Your task to perform on an android device: Search for "panasonic triple a" on newegg.com, select the first entry, add it to the cart, then select checkout. Image 0: 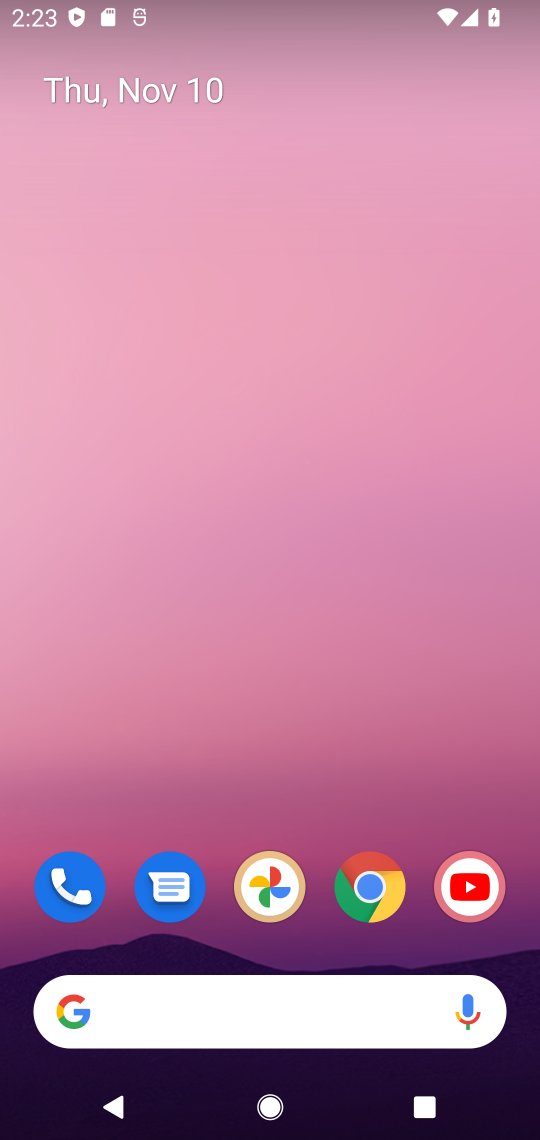
Step 0: drag from (313, 958) to (456, 163)
Your task to perform on an android device: Search for "panasonic triple a" on newegg.com, select the first entry, add it to the cart, then select checkout. Image 1: 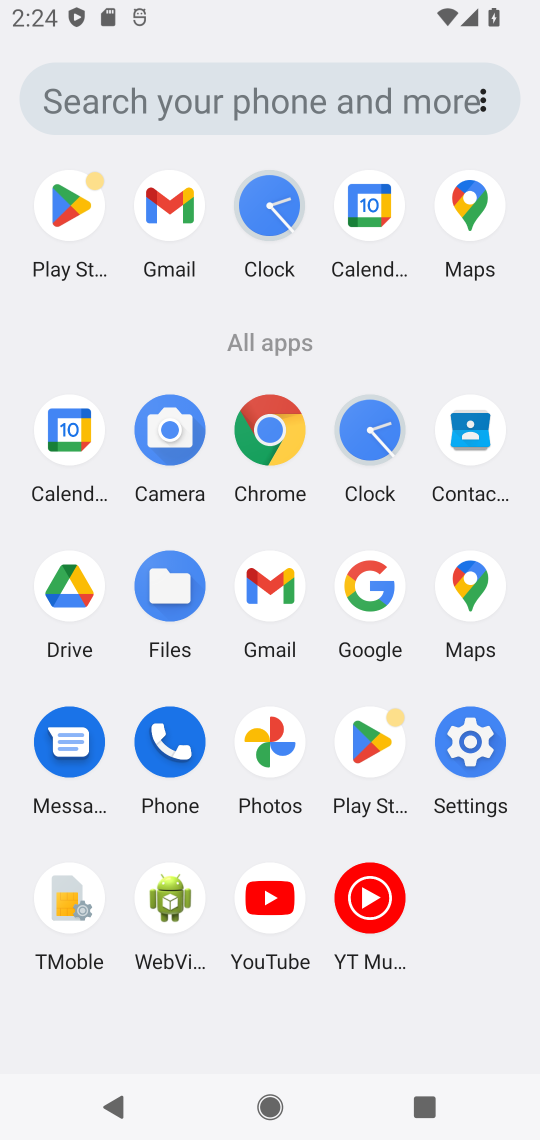
Step 1: click (273, 437)
Your task to perform on an android device: Search for "panasonic triple a" on newegg.com, select the first entry, add it to the cart, then select checkout. Image 2: 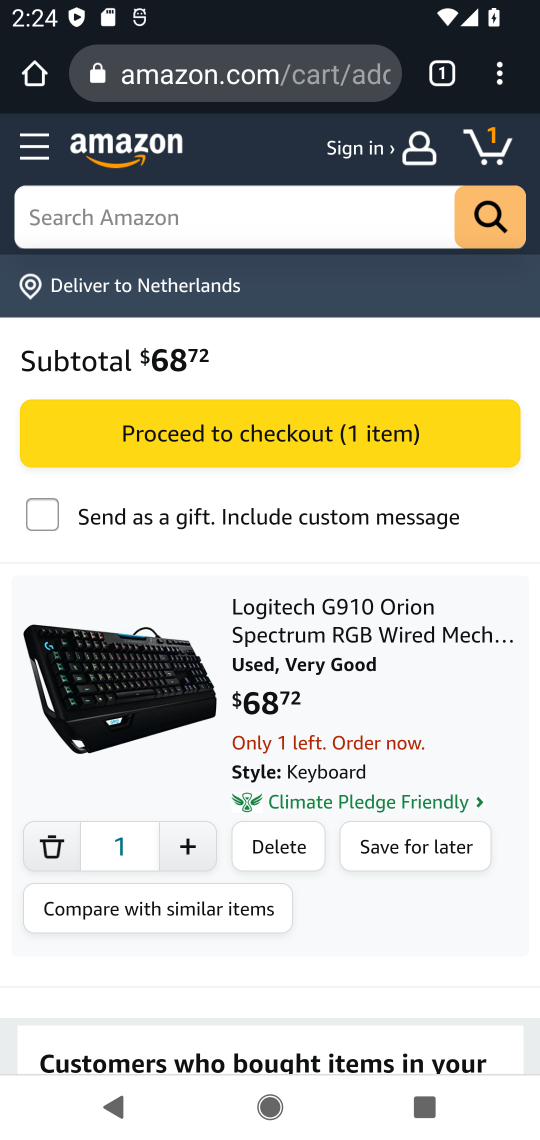
Step 2: click (248, 91)
Your task to perform on an android device: Search for "panasonic triple a" on newegg.com, select the first entry, add it to the cart, then select checkout. Image 3: 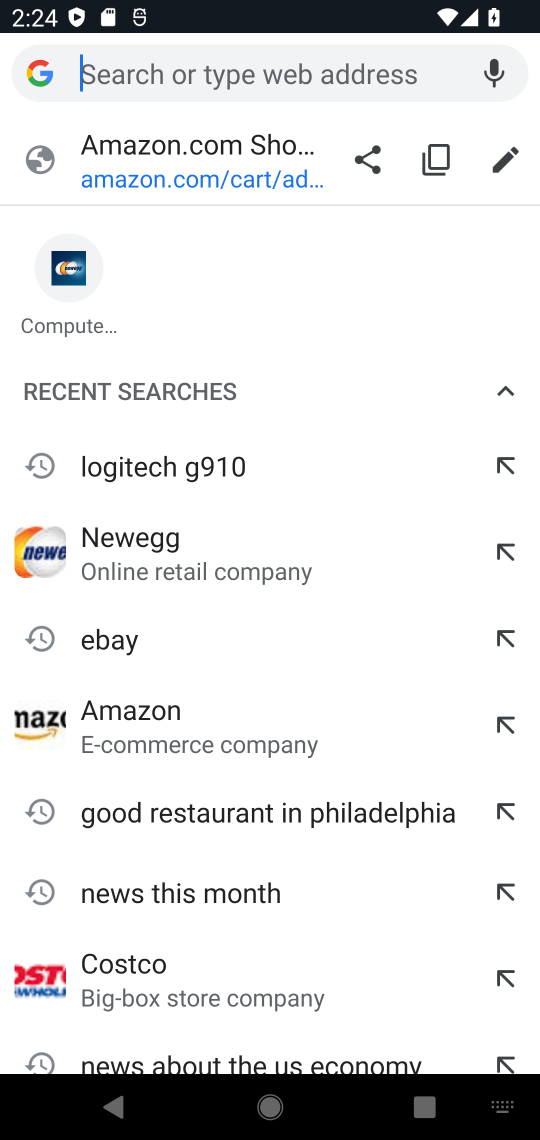
Step 3: type "newegg.com"
Your task to perform on an android device: Search for "panasonic triple a" on newegg.com, select the first entry, add it to the cart, then select checkout. Image 4: 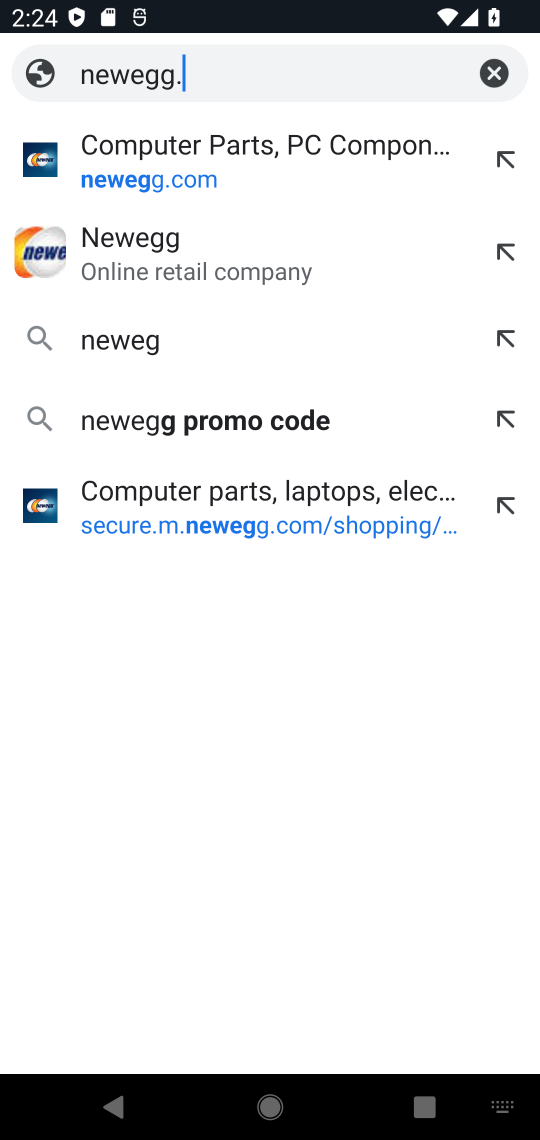
Step 4: press enter
Your task to perform on an android device: Search for "panasonic triple a" on newegg.com, select the first entry, add it to the cart, then select checkout. Image 5: 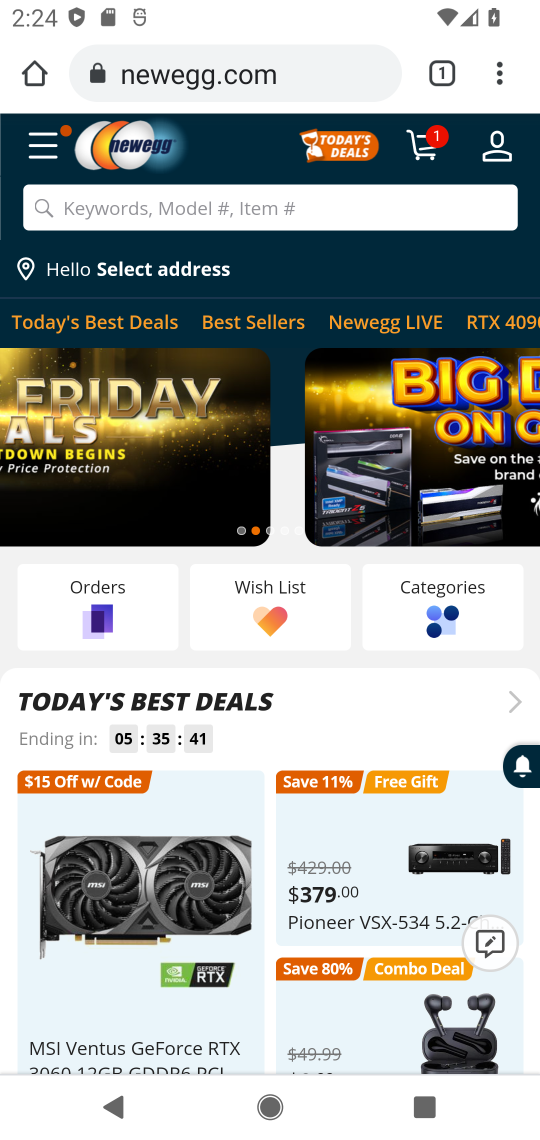
Step 5: click (403, 203)
Your task to perform on an android device: Search for "panasonic triple a" on newegg.com, select the first entry, add it to the cart, then select checkout. Image 6: 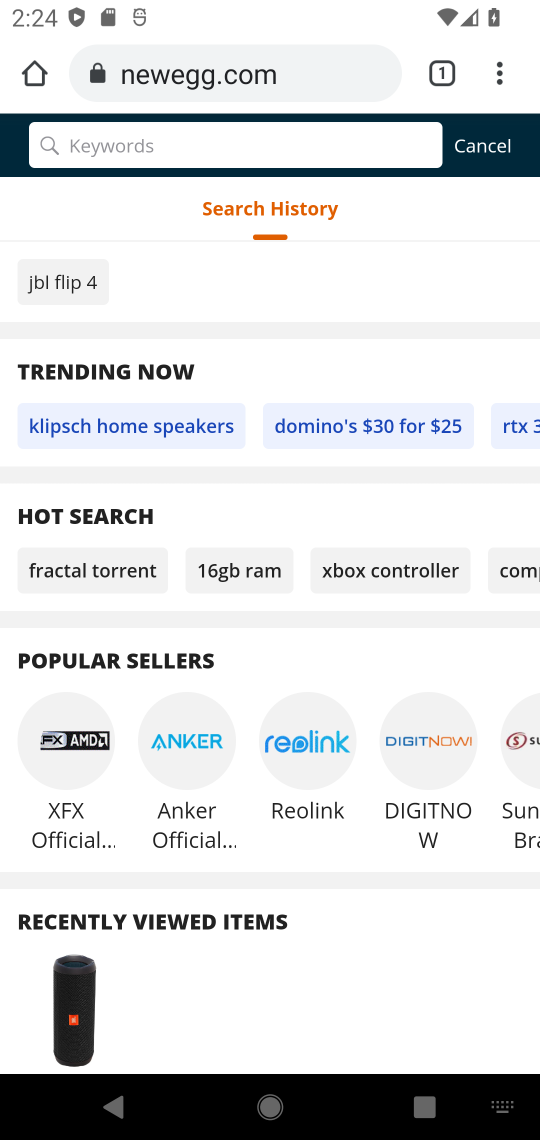
Step 6: type "panasonic triple a"
Your task to perform on an android device: Search for "panasonic triple a" on newegg.com, select the first entry, add it to the cart, then select checkout. Image 7: 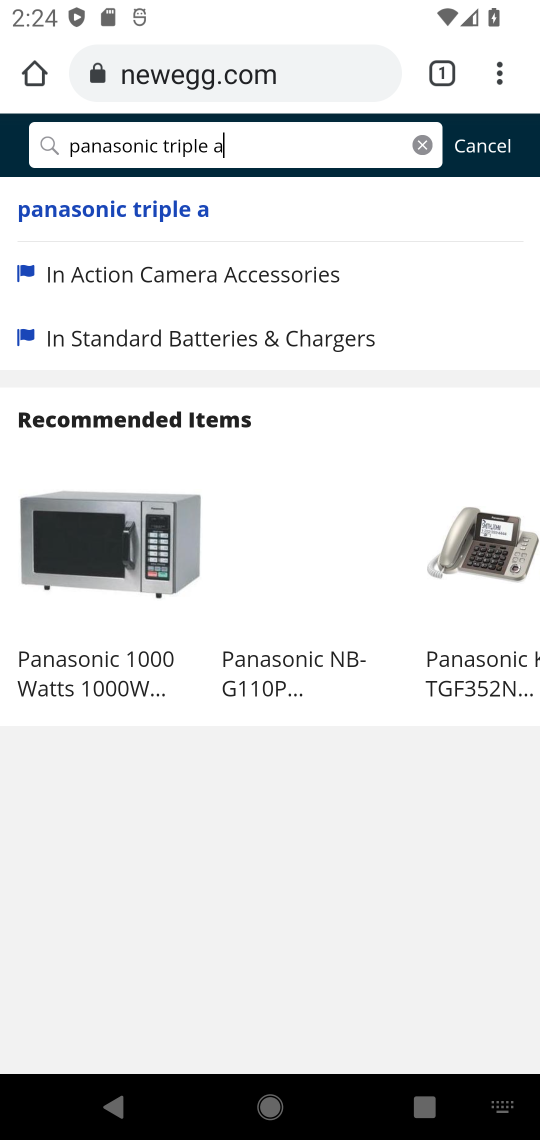
Step 7: press enter
Your task to perform on an android device: Search for "panasonic triple a" on newegg.com, select the first entry, add it to the cart, then select checkout. Image 8: 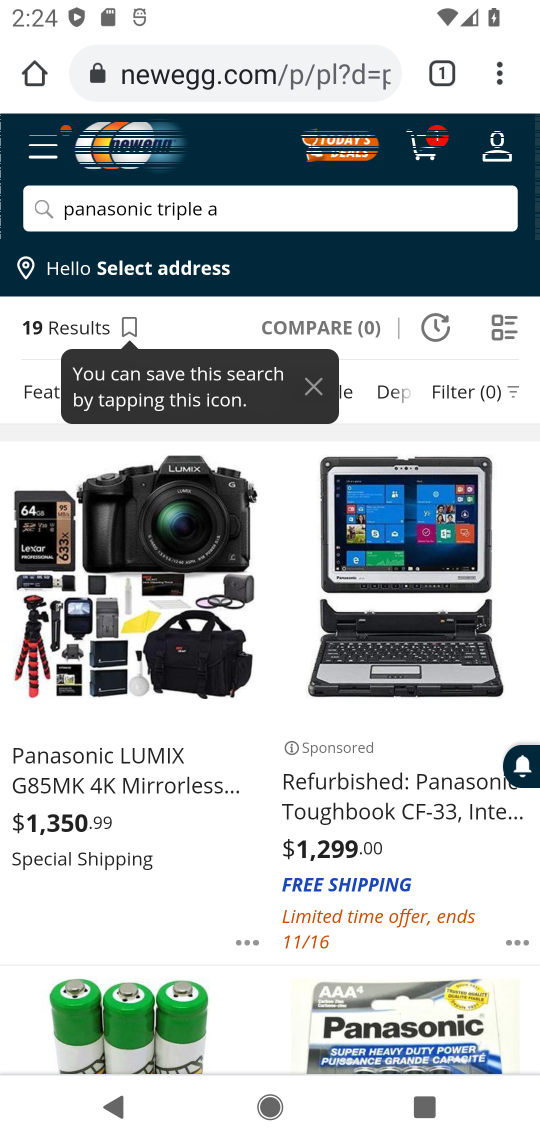
Step 8: drag from (253, 888) to (274, 219)
Your task to perform on an android device: Search for "panasonic triple a" on newegg.com, select the first entry, add it to the cart, then select checkout. Image 9: 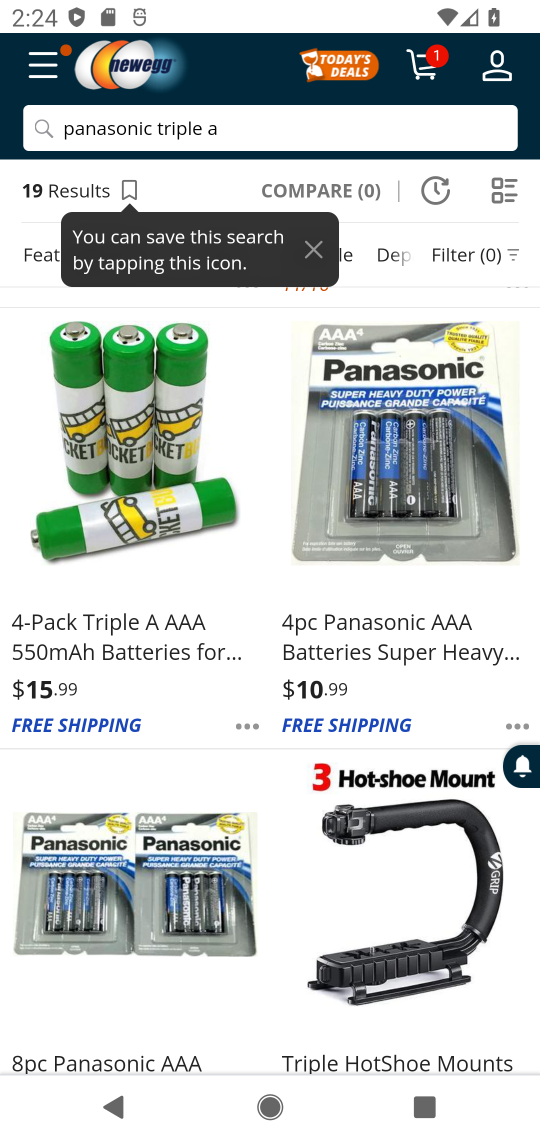
Step 9: click (374, 522)
Your task to perform on an android device: Search for "panasonic triple a" on newegg.com, select the first entry, add it to the cart, then select checkout. Image 10: 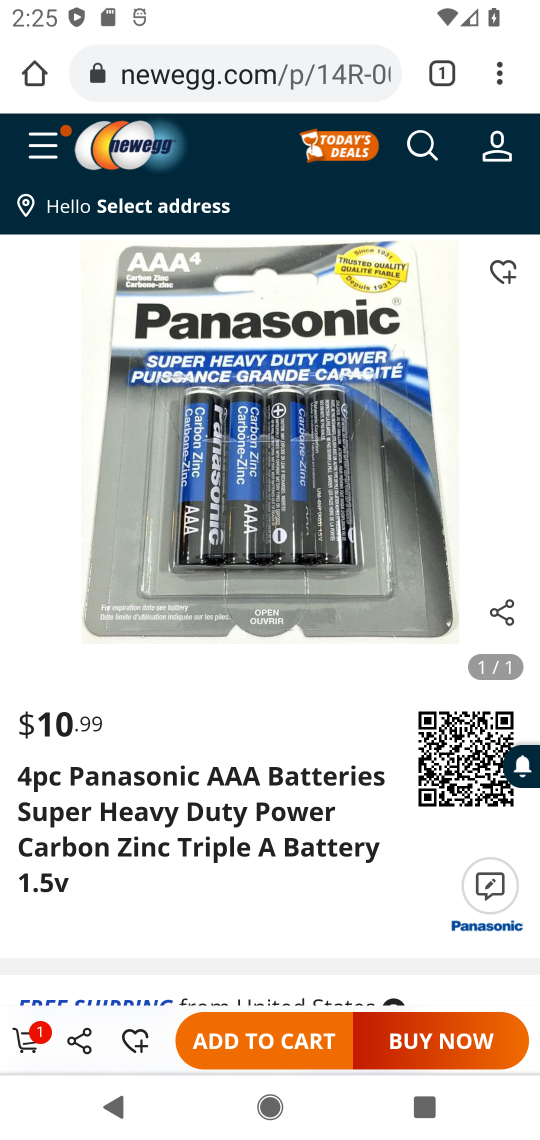
Step 10: click (276, 1051)
Your task to perform on an android device: Search for "panasonic triple a" on newegg.com, select the first entry, add it to the cart, then select checkout. Image 11: 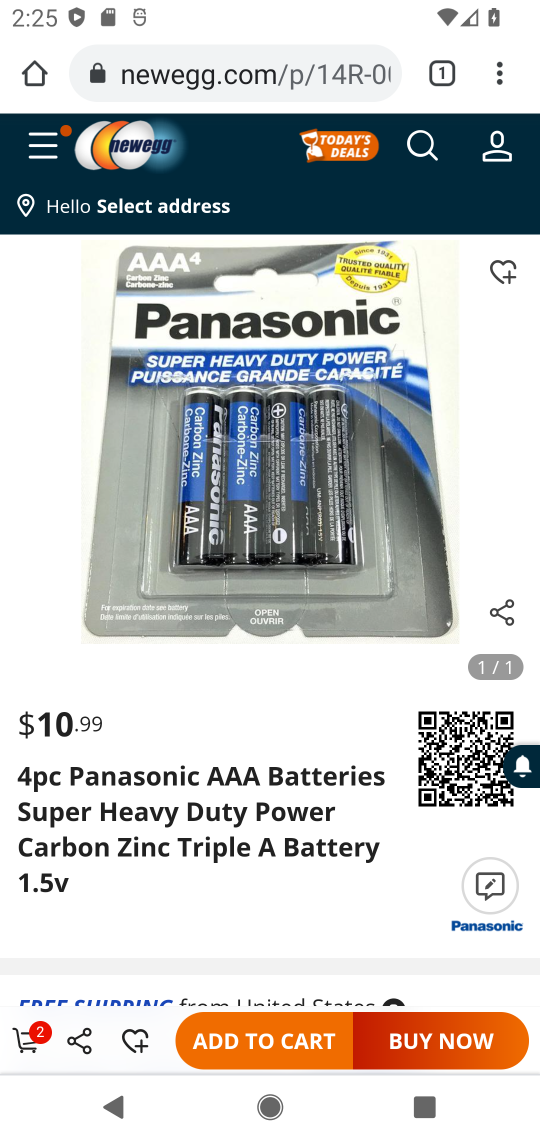
Step 11: click (29, 1043)
Your task to perform on an android device: Search for "panasonic triple a" on newegg.com, select the first entry, add it to the cart, then select checkout. Image 12: 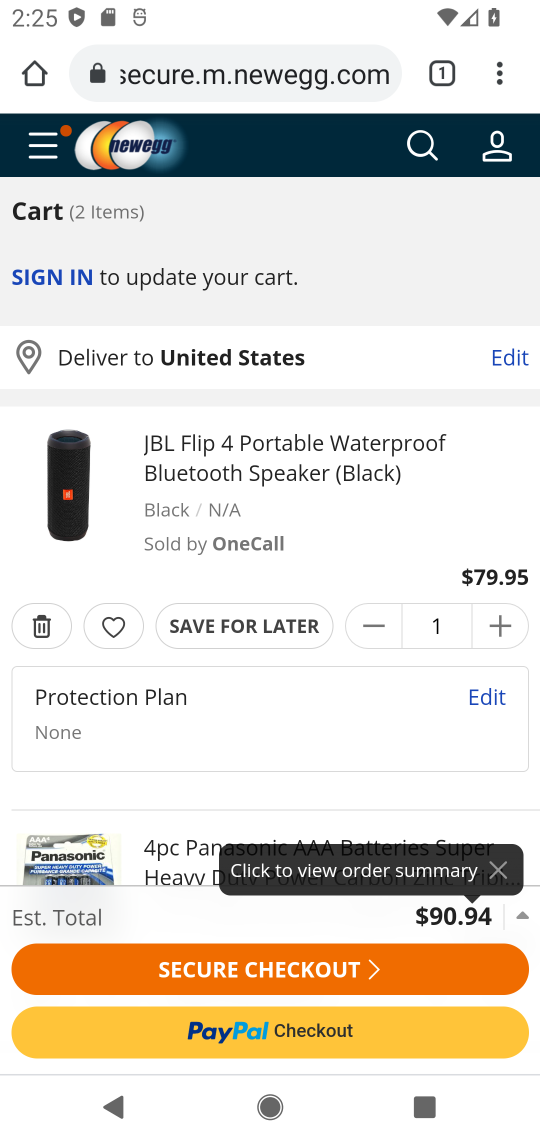
Step 12: click (243, 952)
Your task to perform on an android device: Search for "panasonic triple a" on newegg.com, select the first entry, add it to the cart, then select checkout. Image 13: 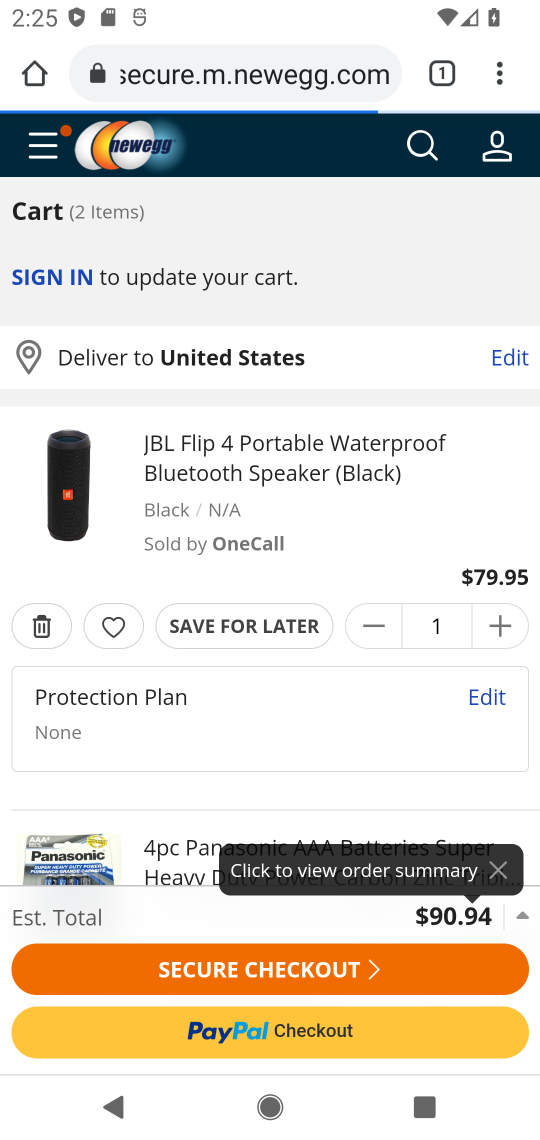
Step 13: click (267, 962)
Your task to perform on an android device: Search for "panasonic triple a" on newegg.com, select the first entry, add it to the cart, then select checkout. Image 14: 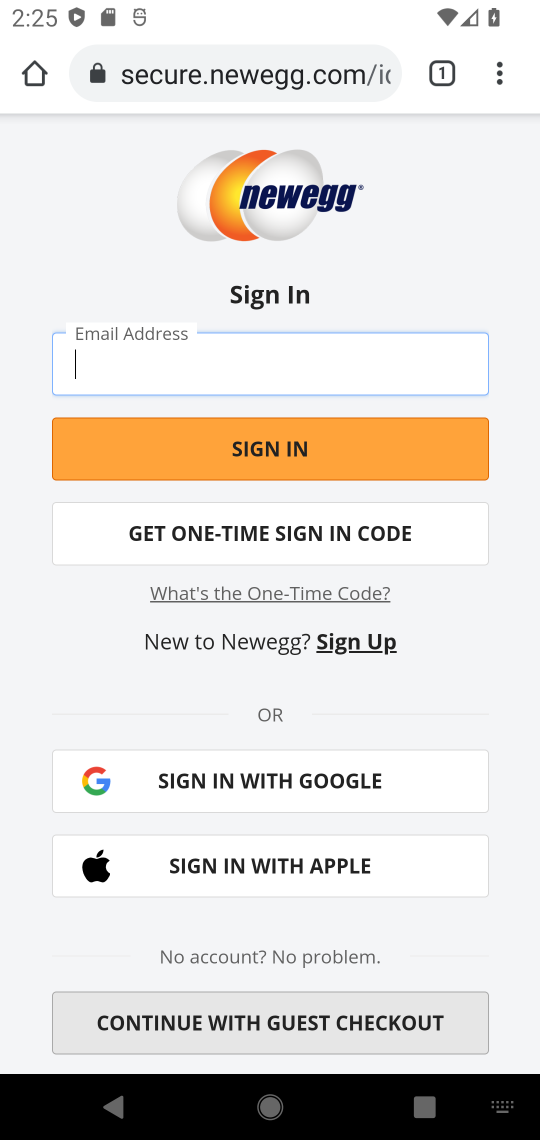
Step 14: task complete